Your task to perform on an android device: Open accessibility settings Image 0: 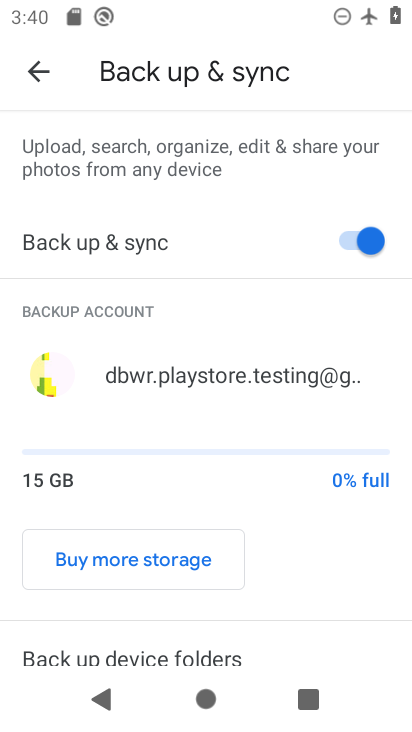
Step 0: press home button
Your task to perform on an android device: Open accessibility settings Image 1: 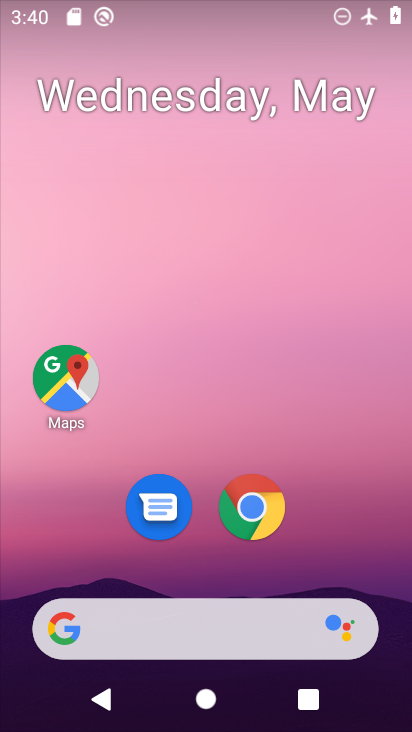
Step 1: drag from (177, 555) to (248, 96)
Your task to perform on an android device: Open accessibility settings Image 2: 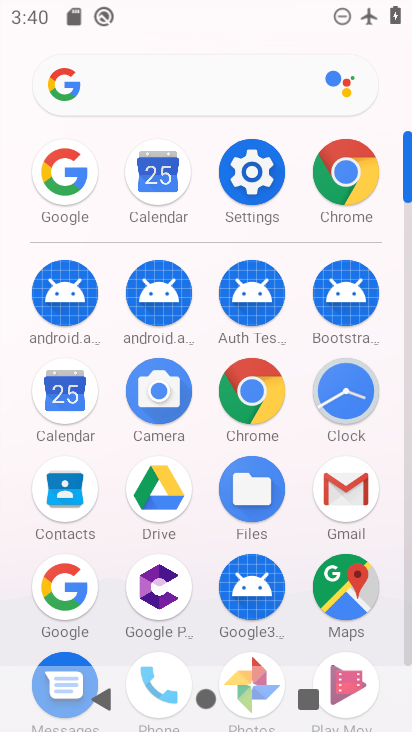
Step 2: click (253, 172)
Your task to perform on an android device: Open accessibility settings Image 3: 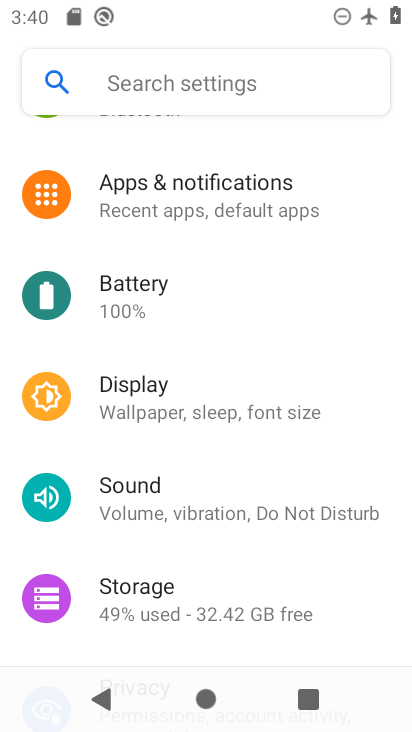
Step 3: drag from (191, 477) to (230, 209)
Your task to perform on an android device: Open accessibility settings Image 4: 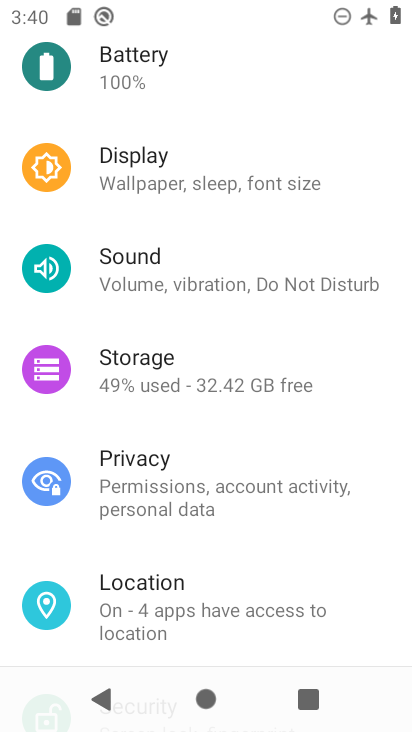
Step 4: drag from (220, 497) to (251, 245)
Your task to perform on an android device: Open accessibility settings Image 5: 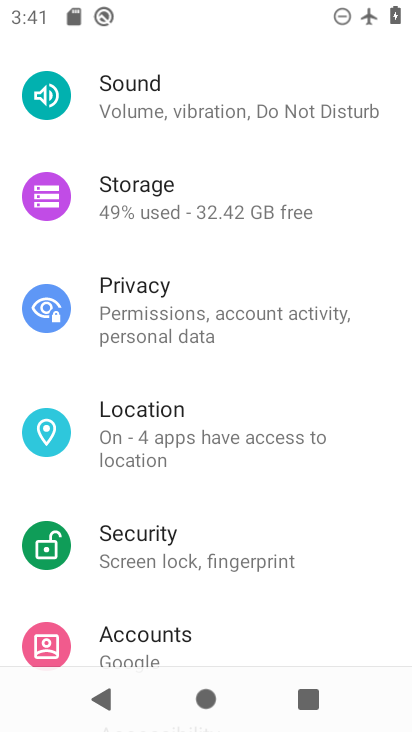
Step 5: drag from (183, 535) to (230, 117)
Your task to perform on an android device: Open accessibility settings Image 6: 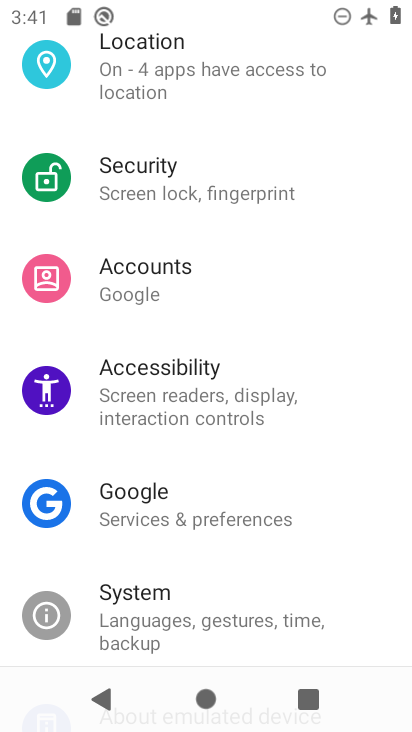
Step 6: click (208, 371)
Your task to perform on an android device: Open accessibility settings Image 7: 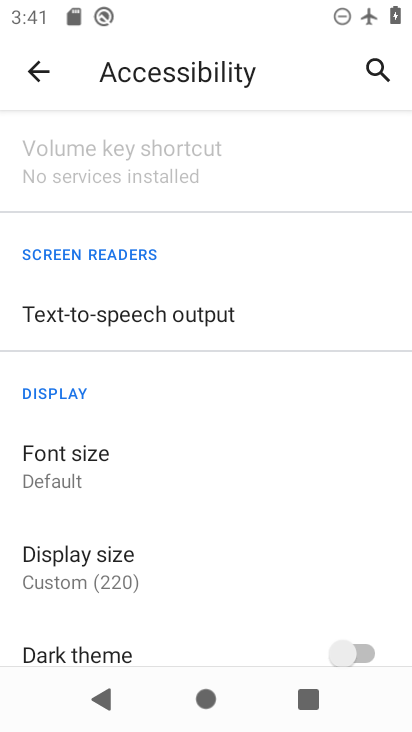
Step 7: task complete